Your task to perform on an android device: set the stopwatch Image 0: 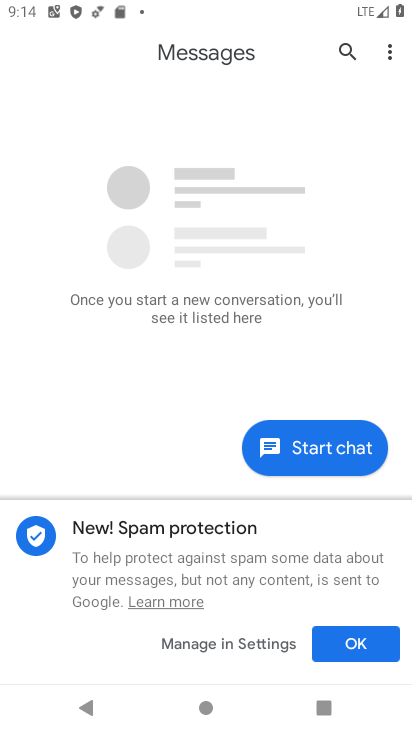
Step 0: press home button
Your task to perform on an android device: set the stopwatch Image 1: 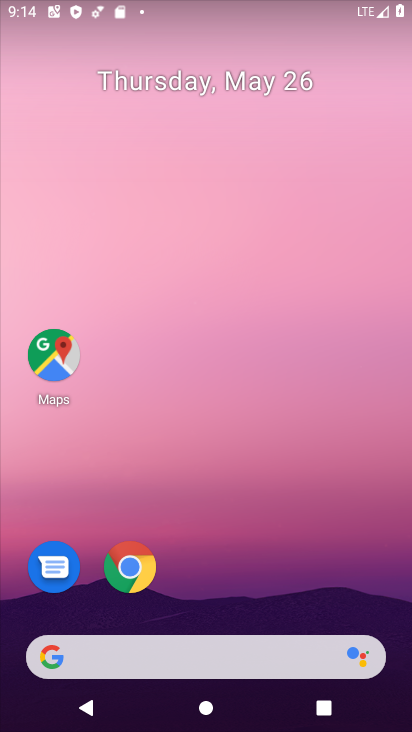
Step 1: drag from (241, 638) to (266, 53)
Your task to perform on an android device: set the stopwatch Image 2: 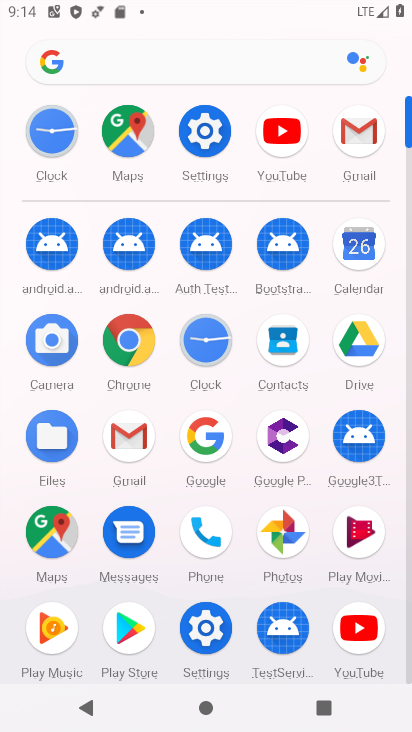
Step 2: click (212, 141)
Your task to perform on an android device: set the stopwatch Image 3: 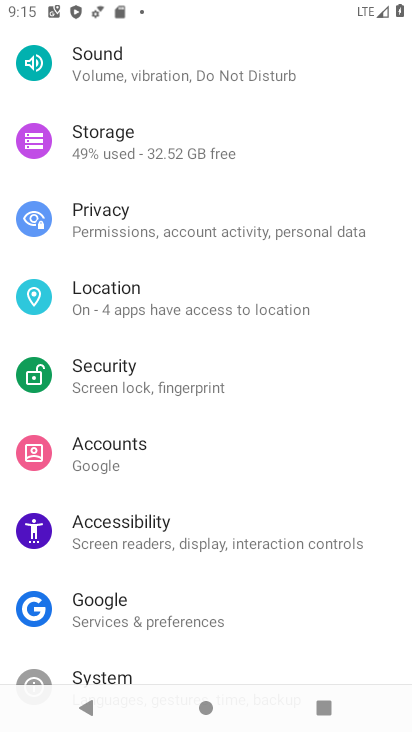
Step 3: press home button
Your task to perform on an android device: set the stopwatch Image 4: 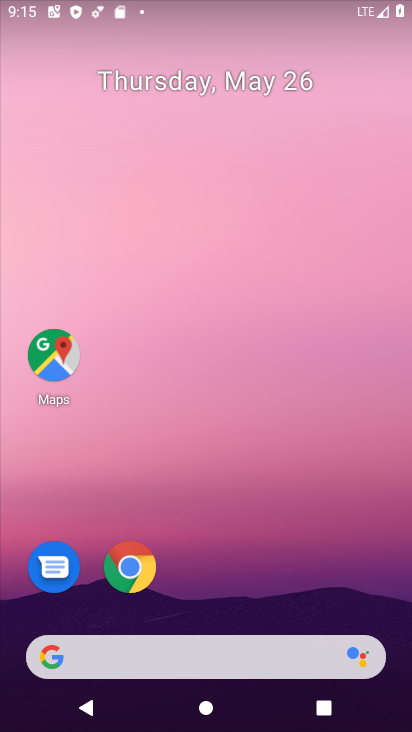
Step 4: drag from (270, 704) to (243, 114)
Your task to perform on an android device: set the stopwatch Image 5: 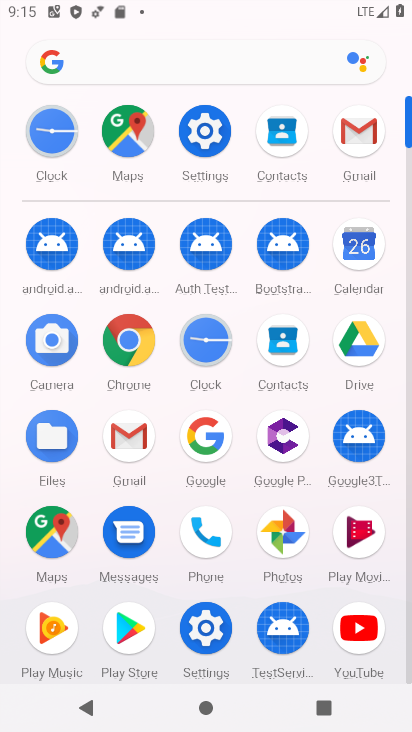
Step 5: click (207, 352)
Your task to perform on an android device: set the stopwatch Image 6: 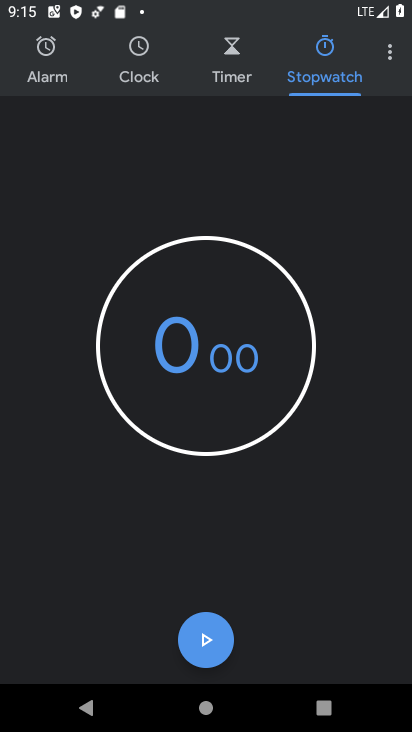
Step 6: task complete